Your task to perform on an android device: check battery use Image 0: 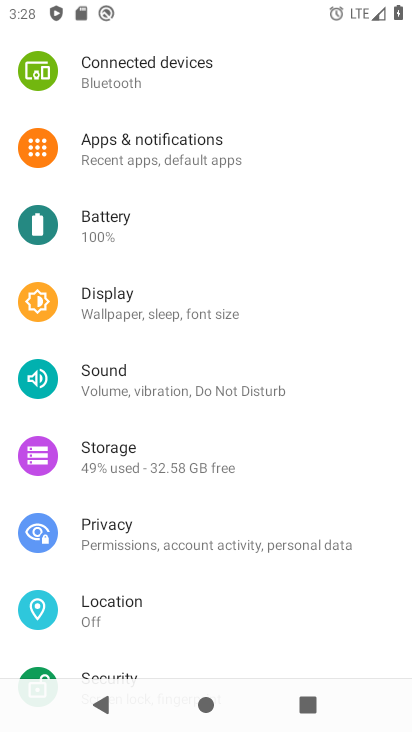
Step 0: click (132, 235)
Your task to perform on an android device: check battery use Image 1: 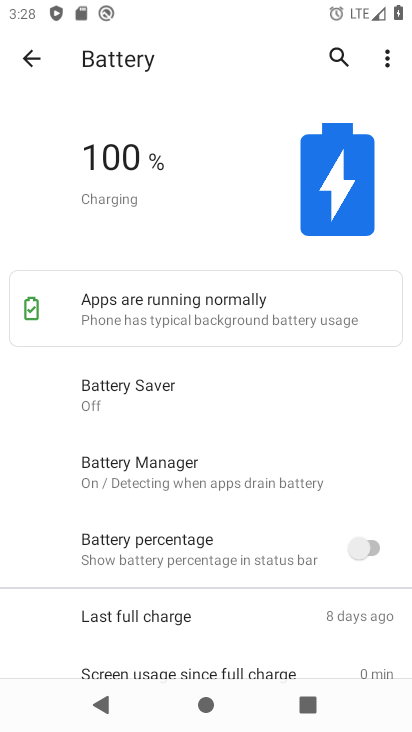
Step 1: click (382, 56)
Your task to perform on an android device: check battery use Image 2: 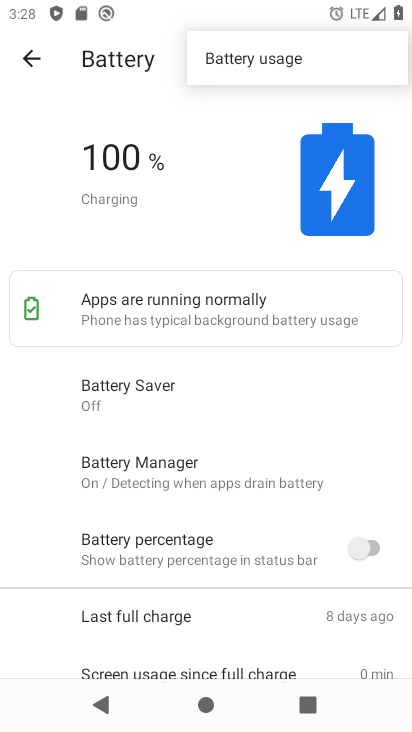
Step 2: click (289, 63)
Your task to perform on an android device: check battery use Image 3: 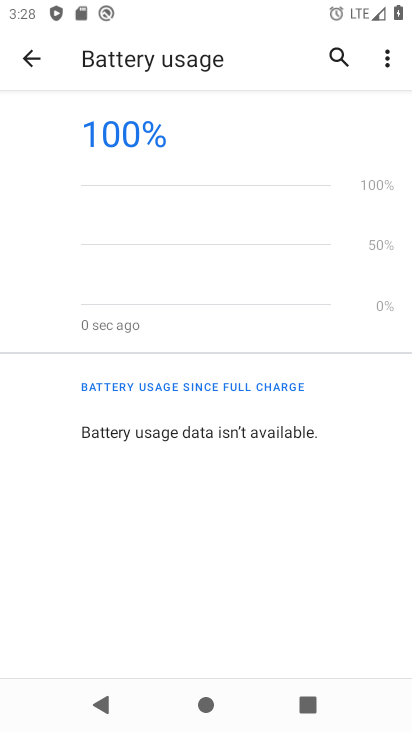
Step 3: task complete